Your task to perform on an android device: turn on the 24-hour format for clock Image 0: 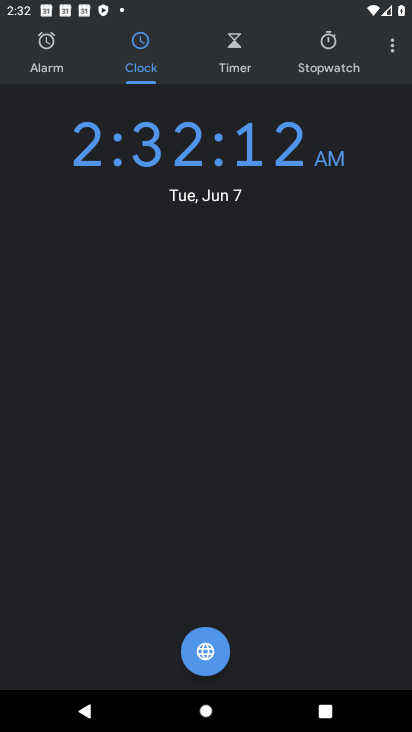
Step 0: click (390, 52)
Your task to perform on an android device: turn on the 24-hour format for clock Image 1: 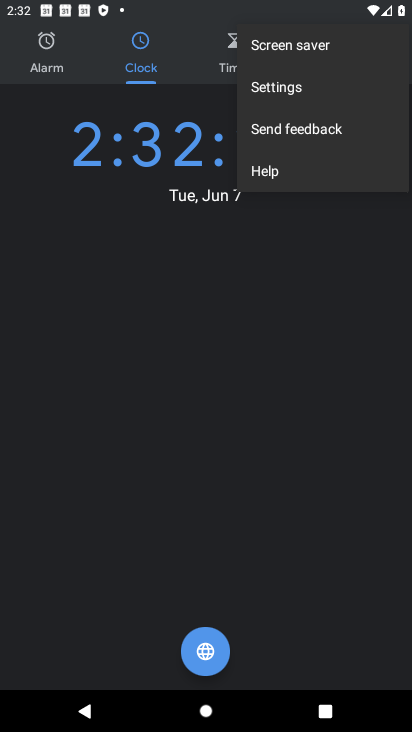
Step 1: click (285, 76)
Your task to perform on an android device: turn on the 24-hour format for clock Image 2: 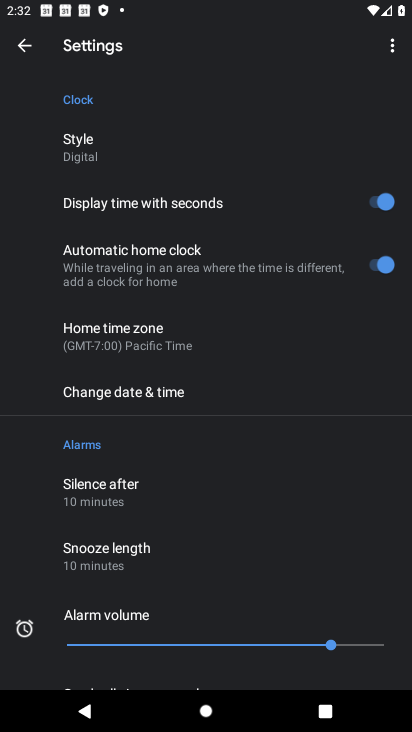
Step 2: task complete